Your task to perform on an android device: Is it going to rain today? Image 0: 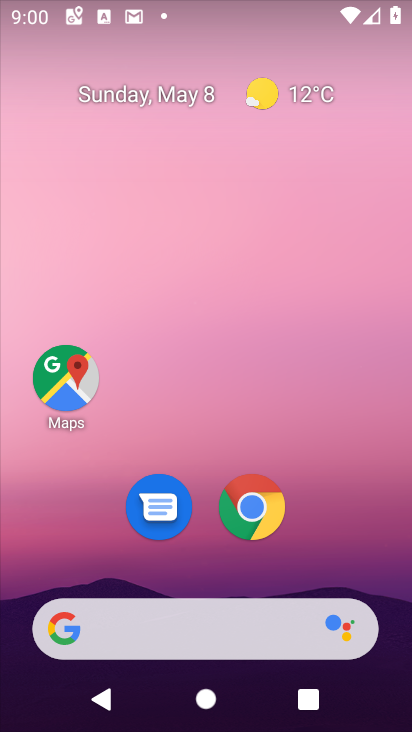
Step 0: click (217, 621)
Your task to perform on an android device: Is it going to rain today? Image 1: 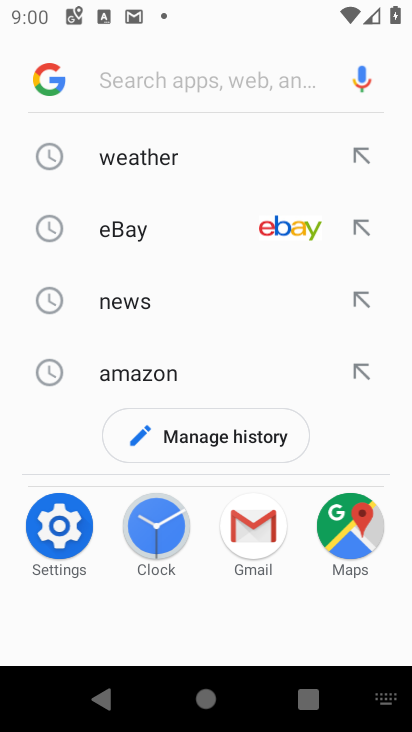
Step 1: type "Is it going to rain today?"
Your task to perform on an android device: Is it going to rain today? Image 2: 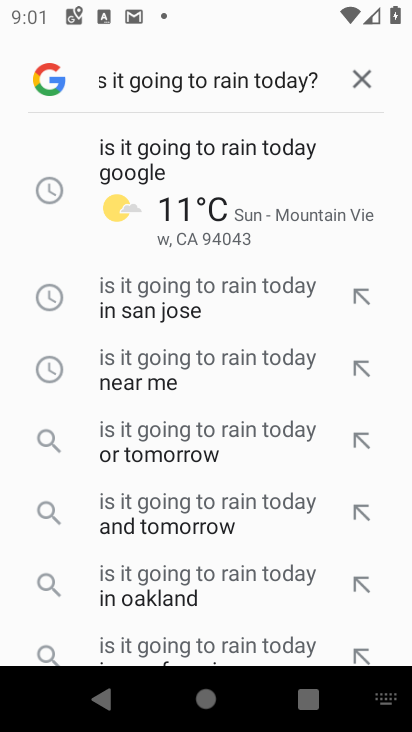
Step 2: click (295, 132)
Your task to perform on an android device: Is it going to rain today? Image 3: 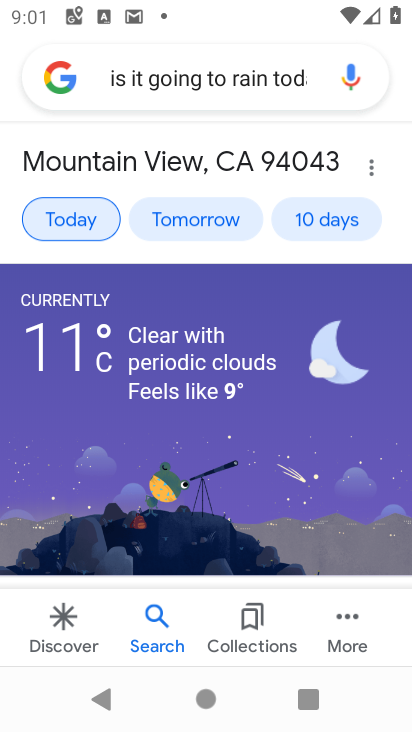
Step 3: task complete